Your task to perform on an android device: Open display settings Image 0: 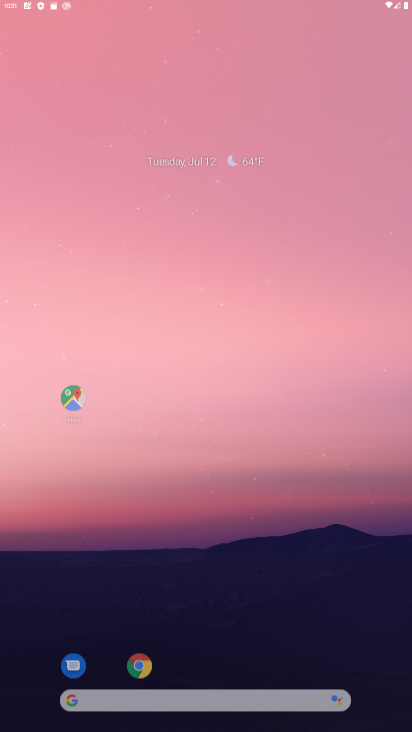
Step 0: click (220, 116)
Your task to perform on an android device: Open display settings Image 1: 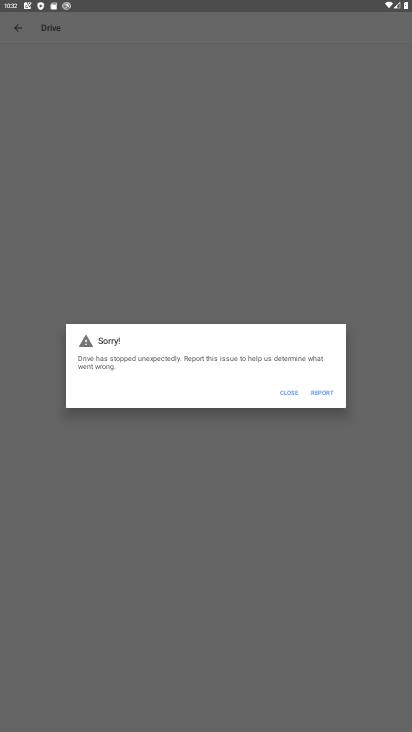
Step 1: press home button
Your task to perform on an android device: Open display settings Image 2: 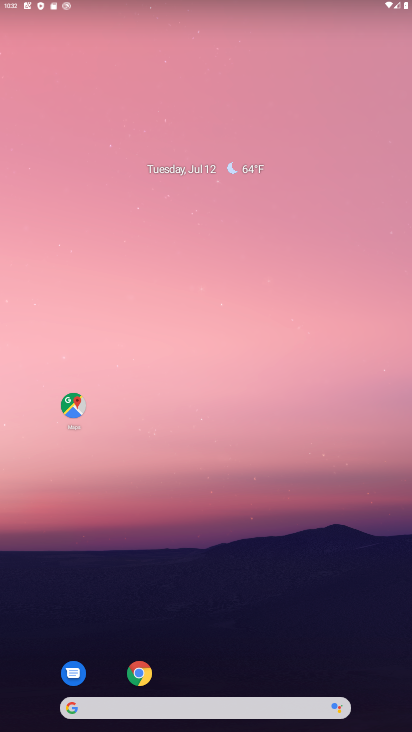
Step 2: drag from (302, 569) to (310, 0)
Your task to perform on an android device: Open display settings Image 3: 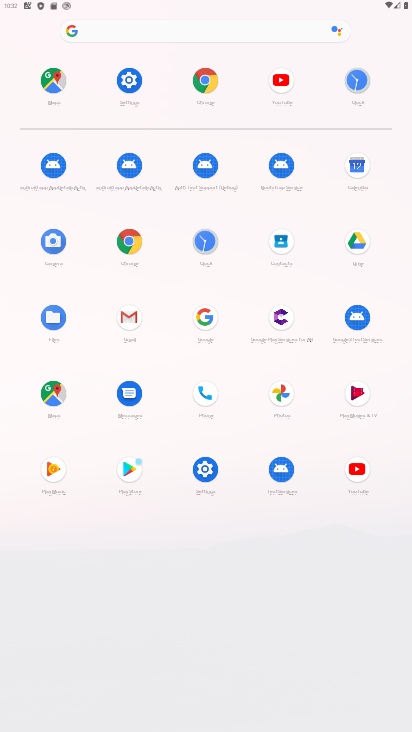
Step 3: click (128, 81)
Your task to perform on an android device: Open display settings Image 4: 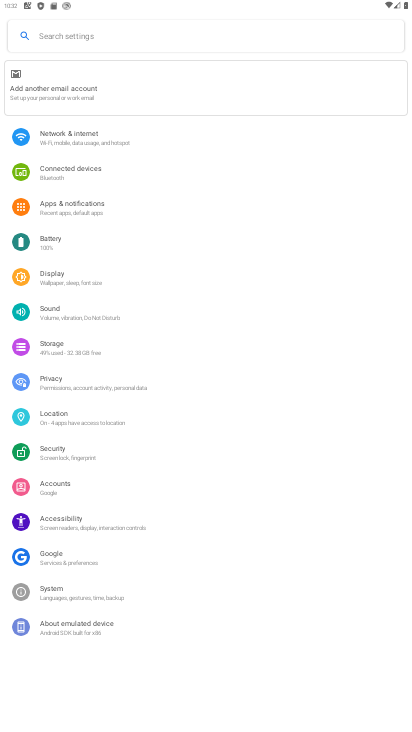
Step 4: click (63, 276)
Your task to perform on an android device: Open display settings Image 5: 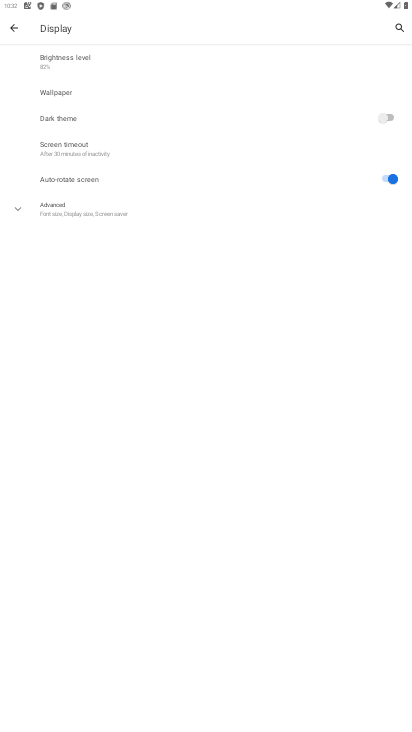
Step 5: task complete